Your task to perform on an android device: Is it going to rain tomorrow? Image 0: 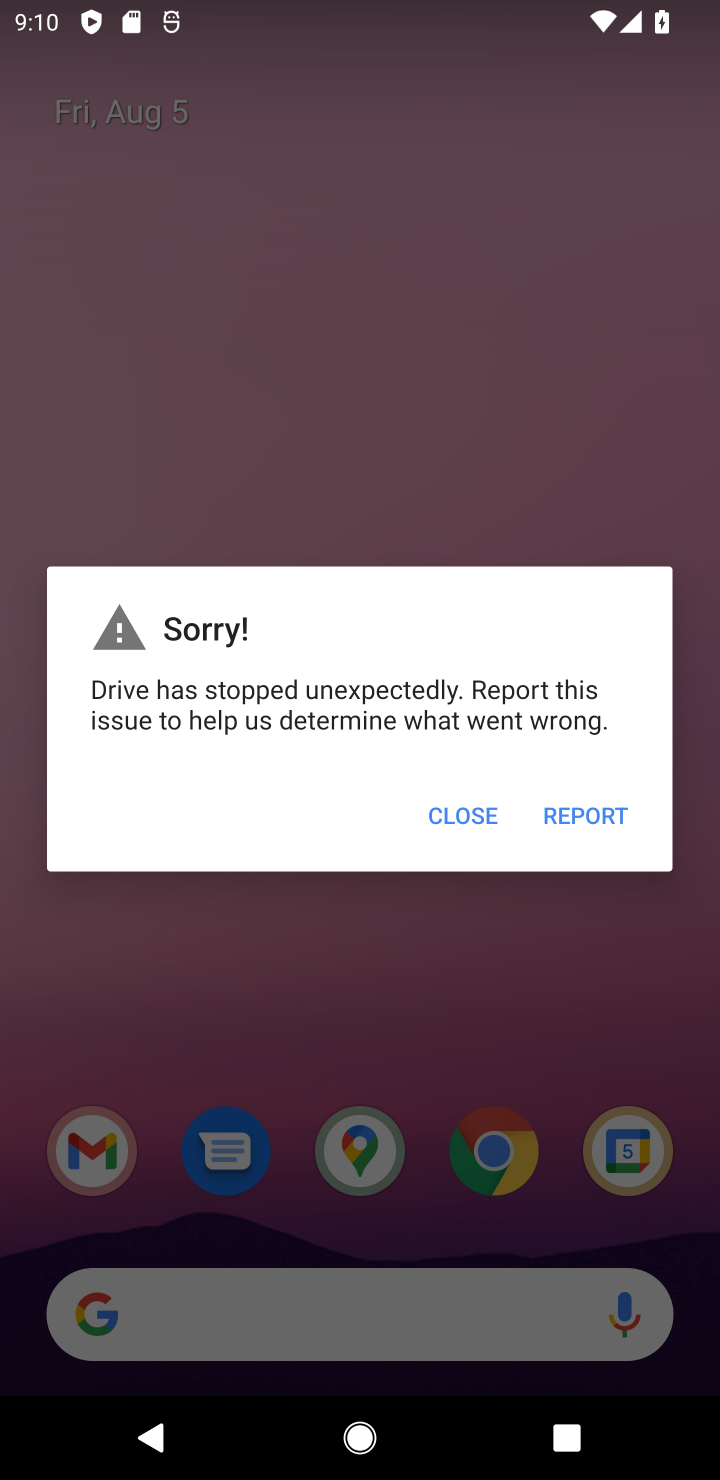
Step 0: press home button
Your task to perform on an android device: Is it going to rain tomorrow? Image 1: 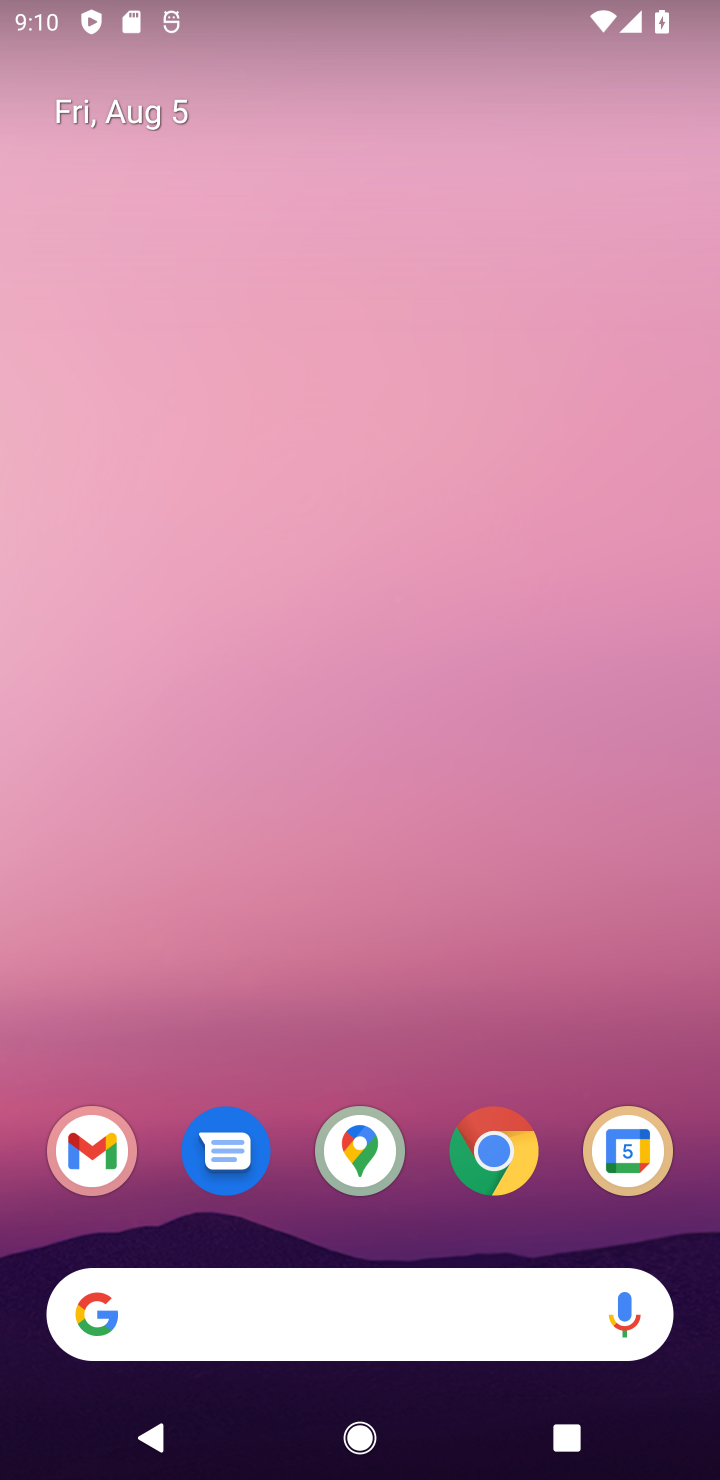
Step 1: drag from (359, 1197) to (309, 291)
Your task to perform on an android device: Is it going to rain tomorrow? Image 2: 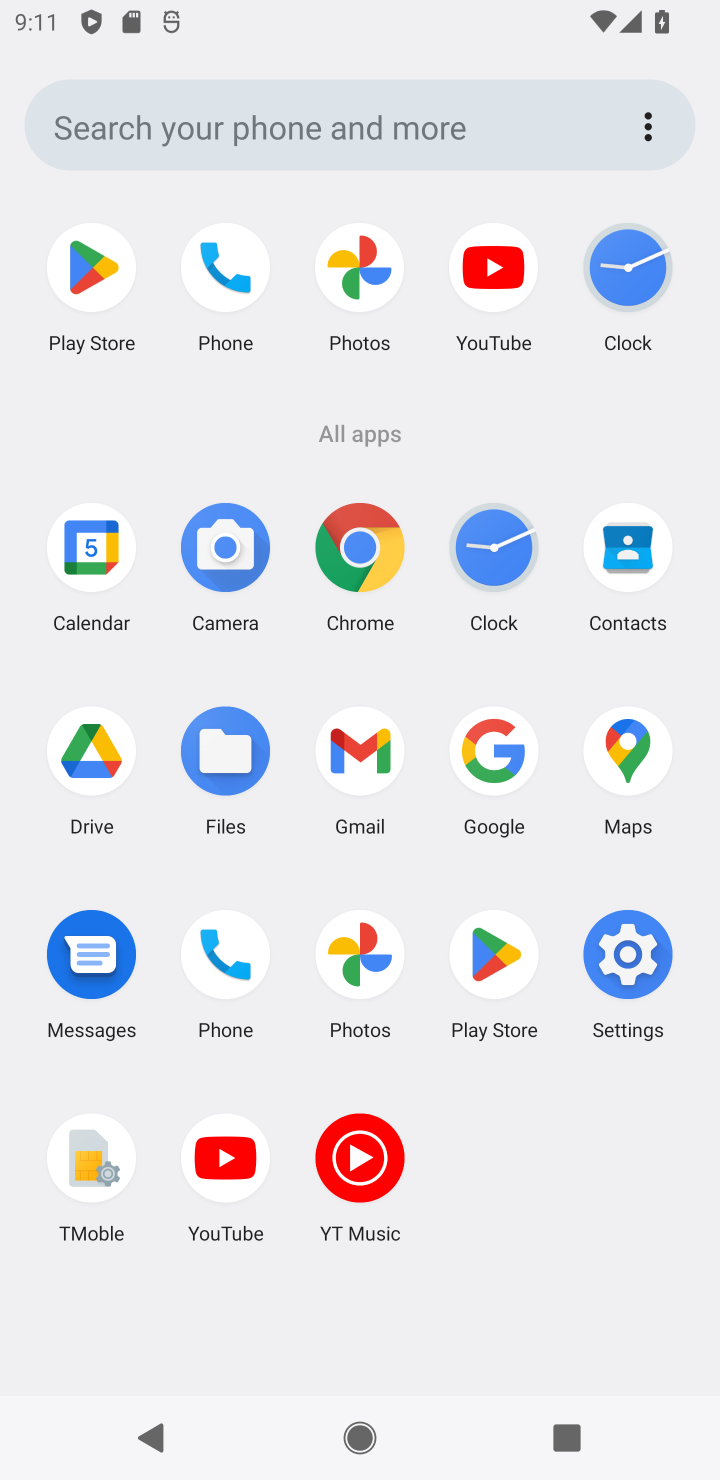
Step 2: click (487, 805)
Your task to perform on an android device: Is it going to rain tomorrow? Image 3: 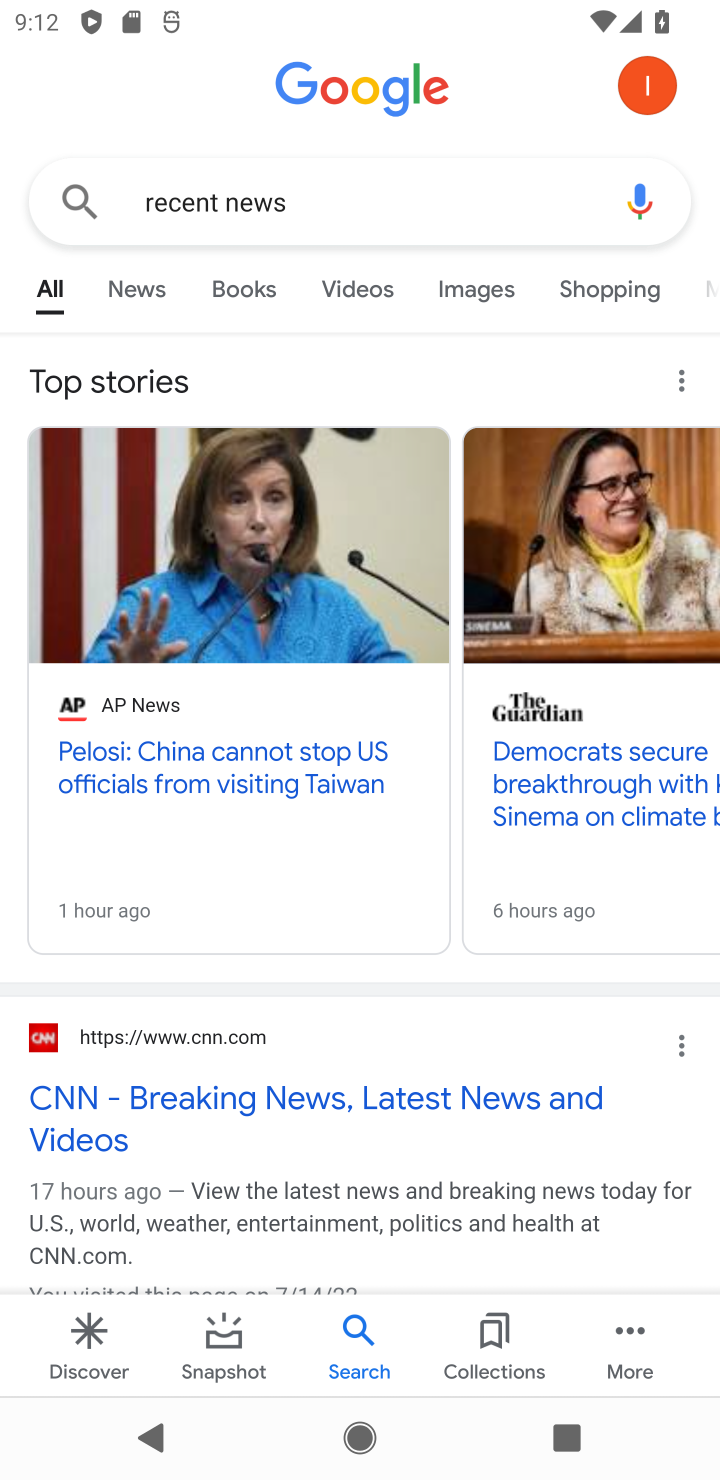
Step 3: click (370, 184)
Your task to perform on an android device: Is it going to rain tomorrow? Image 4: 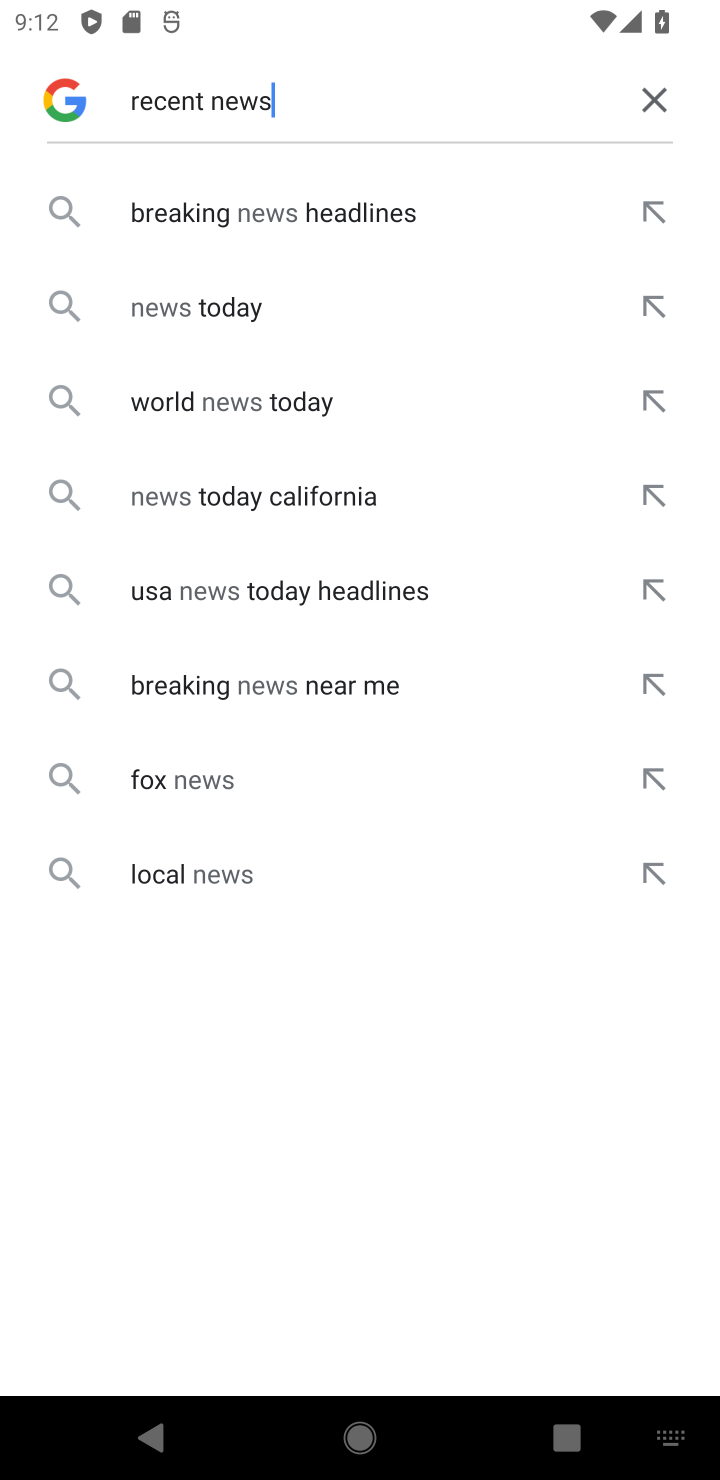
Step 4: click (654, 91)
Your task to perform on an android device: Is it going to rain tomorrow? Image 5: 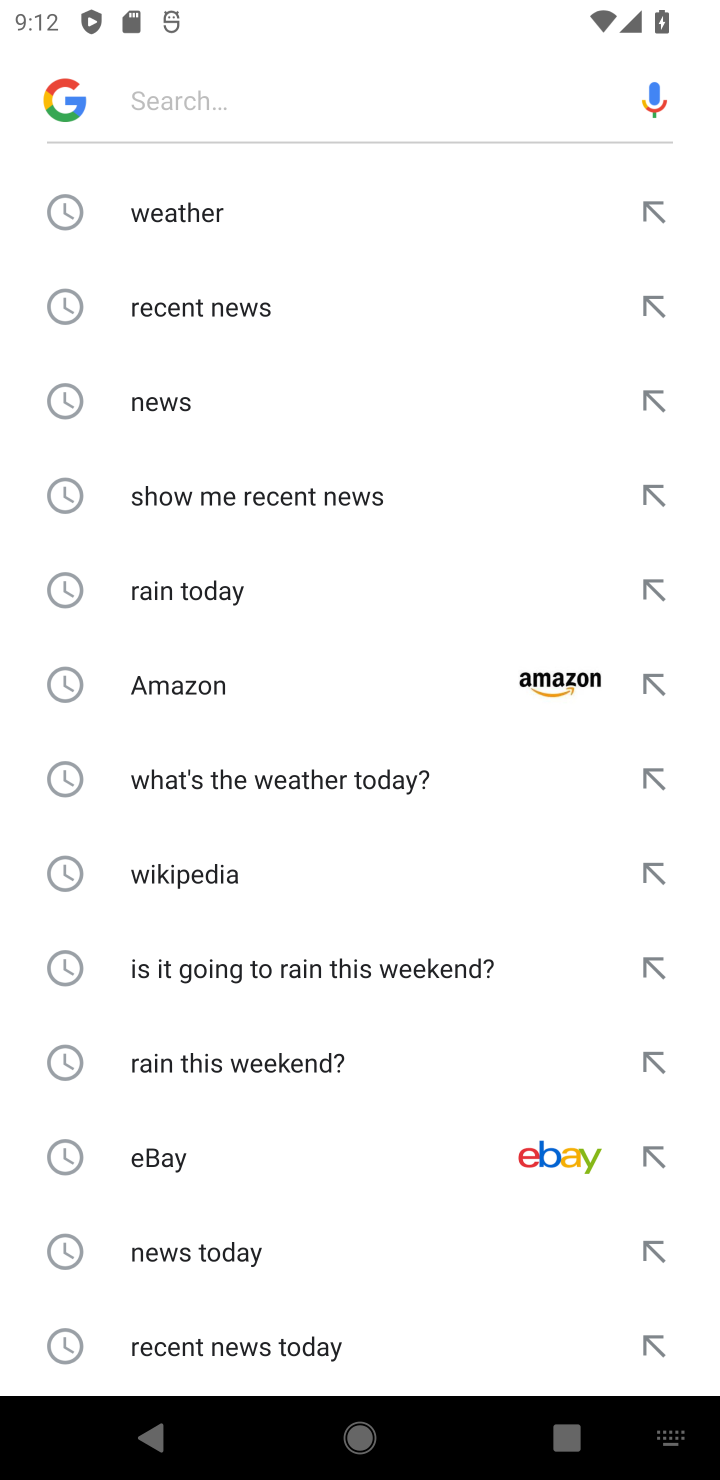
Step 5: click (366, 119)
Your task to perform on an android device: Is it going to rain tomorrow? Image 6: 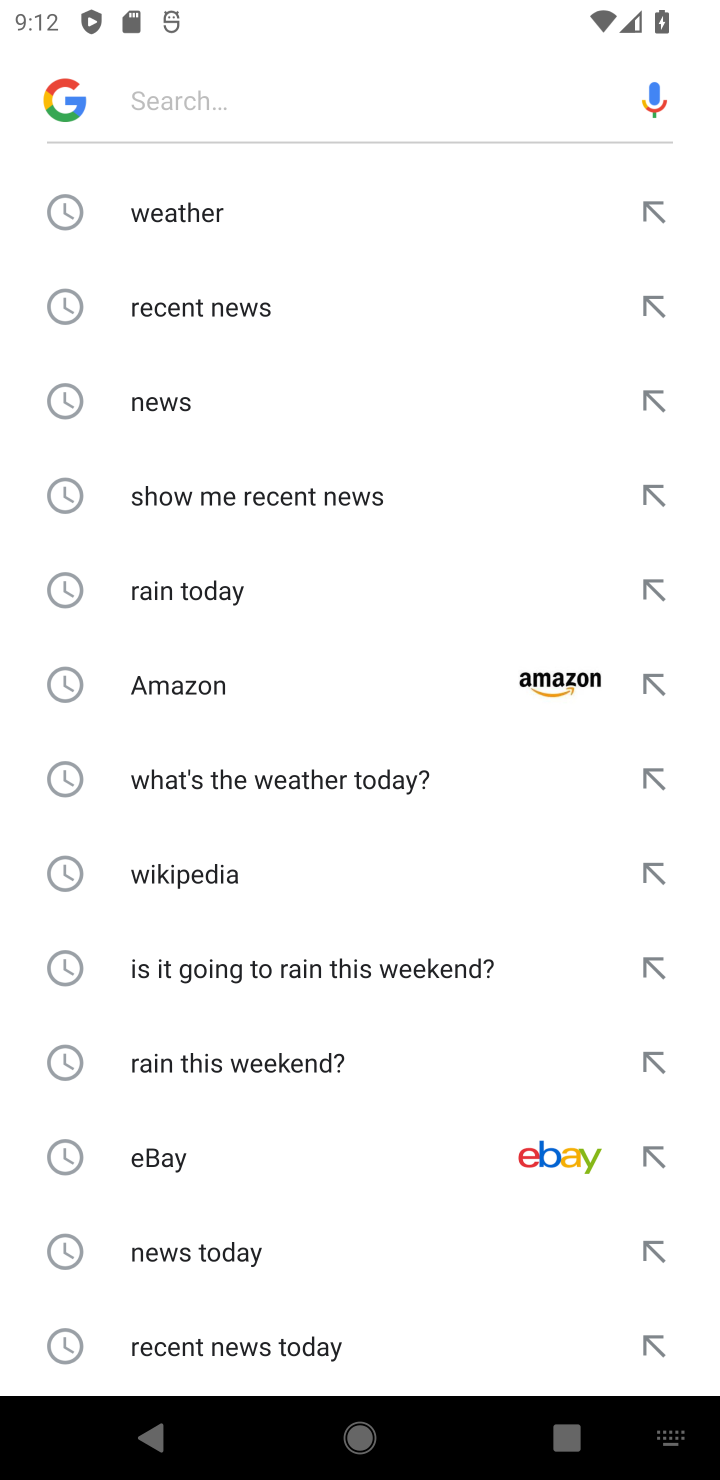
Step 6: click (179, 221)
Your task to perform on an android device: Is it going to rain tomorrow? Image 7: 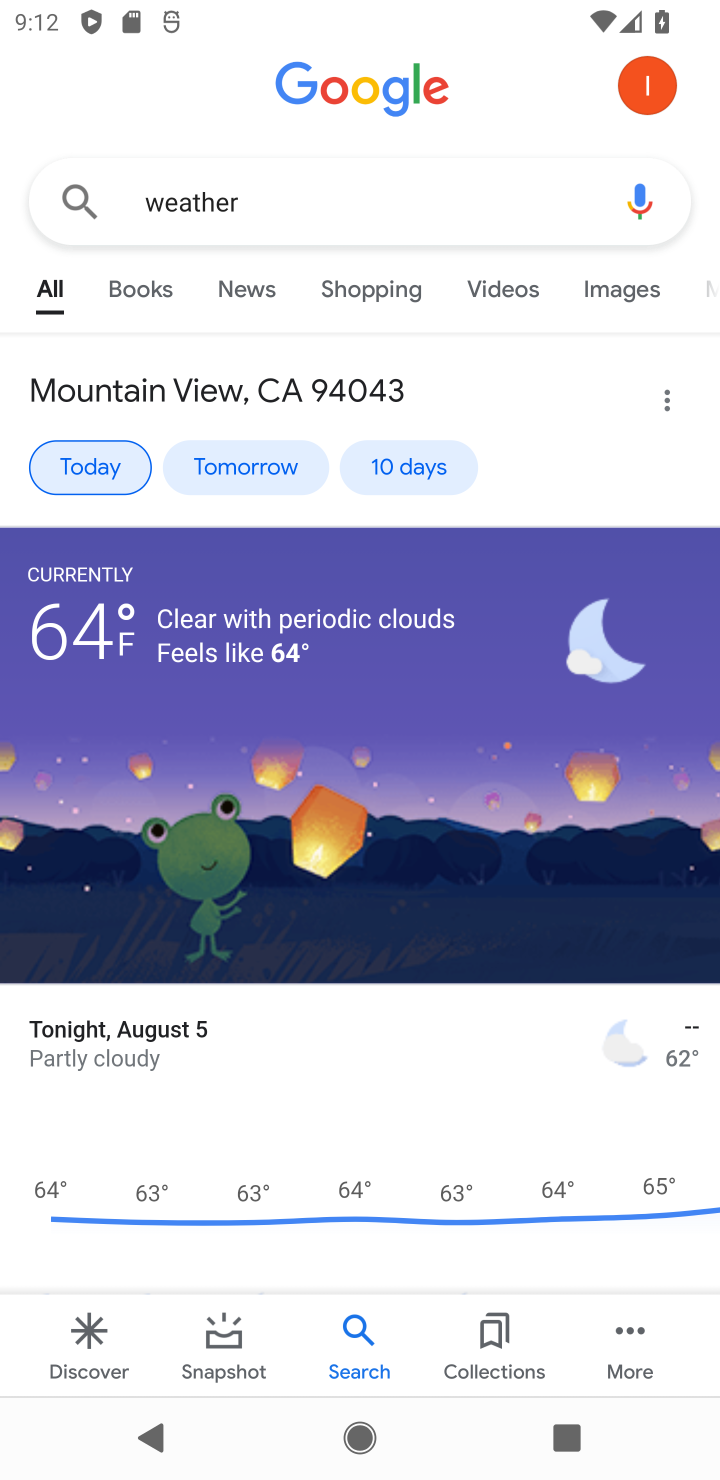
Step 7: click (263, 460)
Your task to perform on an android device: Is it going to rain tomorrow? Image 8: 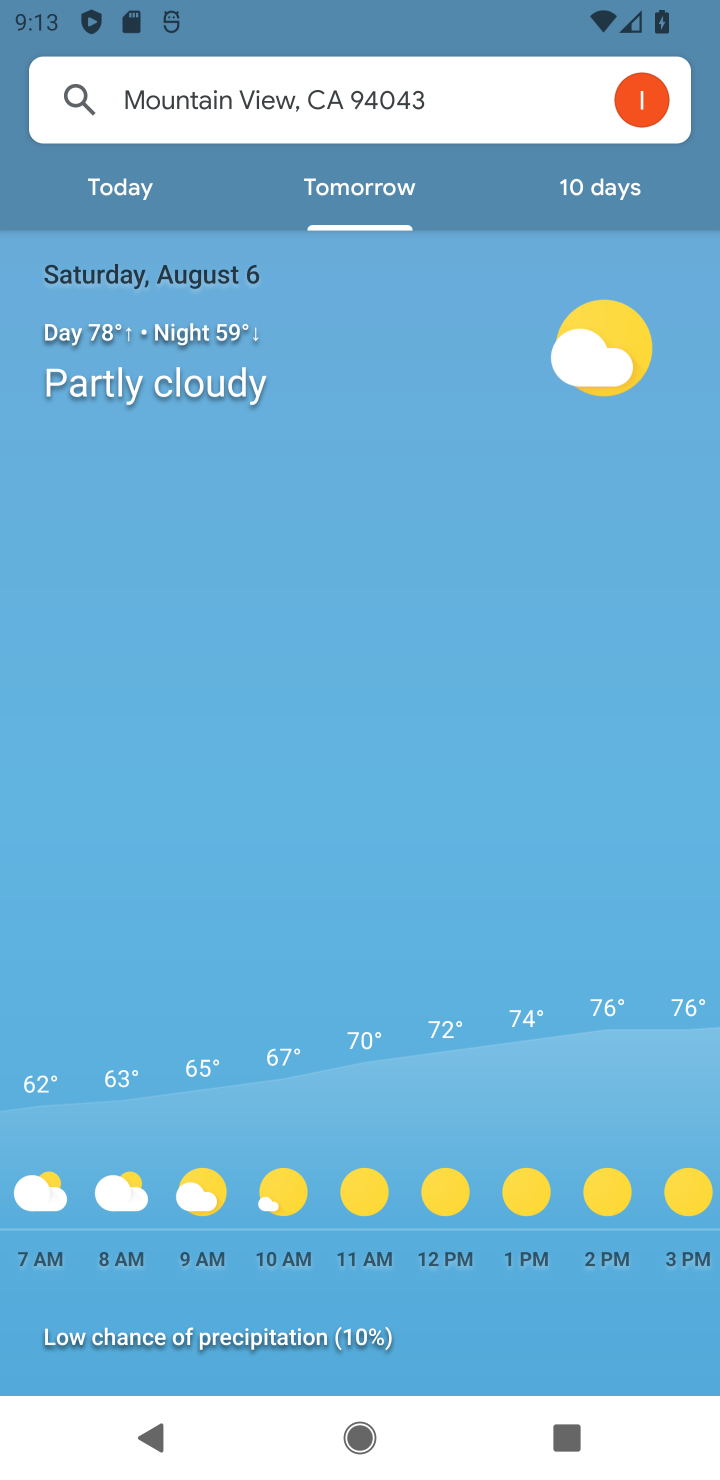
Step 8: task complete